Your task to perform on an android device: move an email to a new category in the gmail app Image 0: 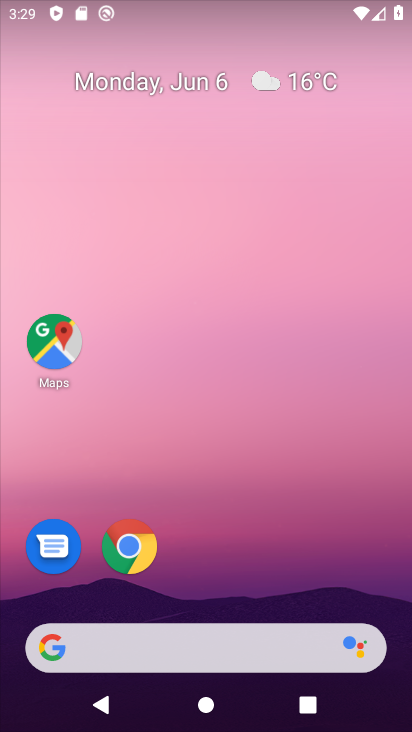
Step 0: drag from (254, 726) to (257, 104)
Your task to perform on an android device: move an email to a new category in the gmail app Image 1: 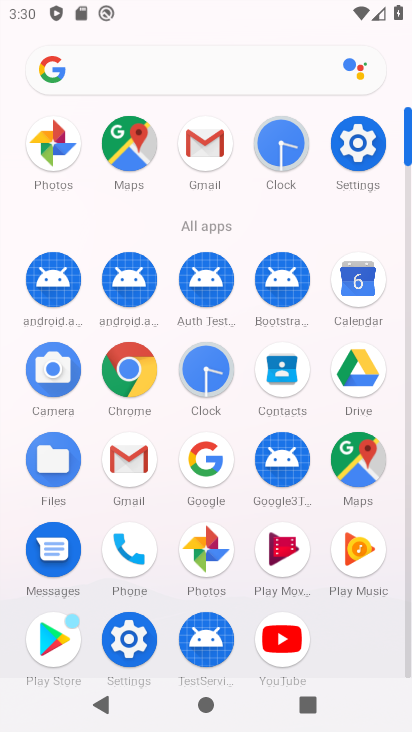
Step 1: click (122, 456)
Your task to perform on an android device: move an email to a new category in the gmail app Image 2: 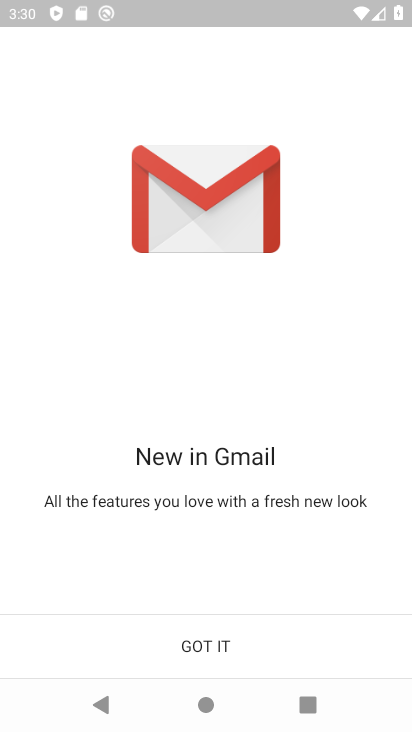
Step 2: click (211, 646)
Your task to perform on an android device: move an email to a new category in the gmail app Image 3: 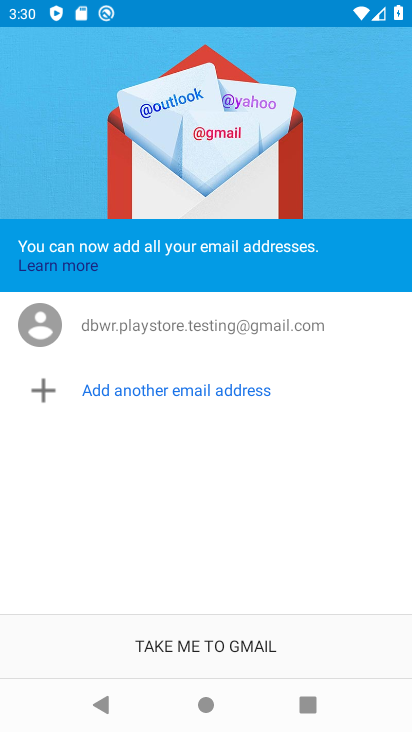
Step 3: click (224, 637)
Your task to perform on an android device: move an email to a new category in the gmail app Image 4: 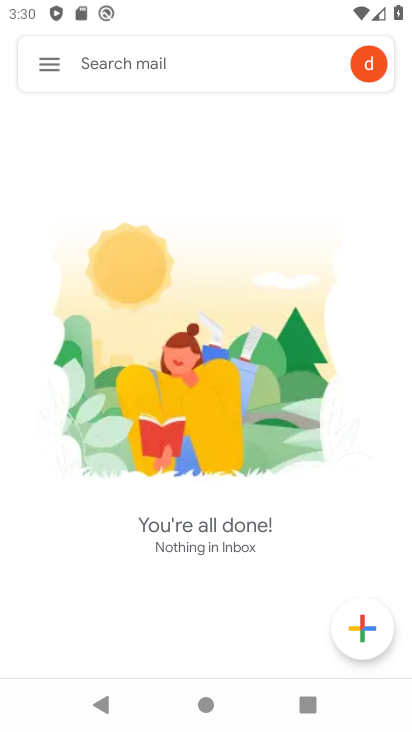
Step 4: task complete